Your task to perform on an android device: toggle improve location accuracy Image 0: 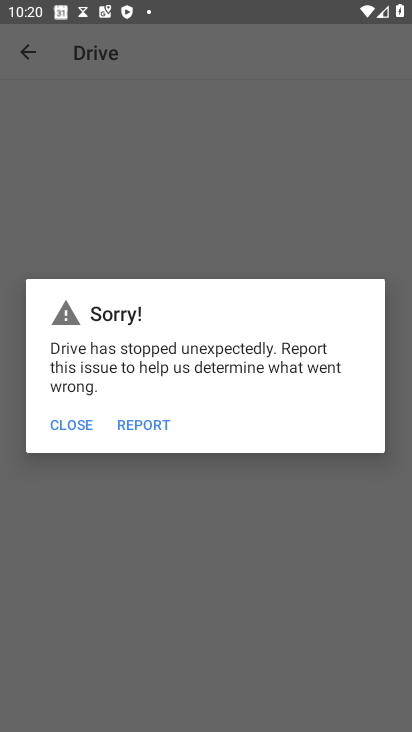
Step 0: press home button
Your task to perform on an android device: toggle improve location accuracy Image 1: 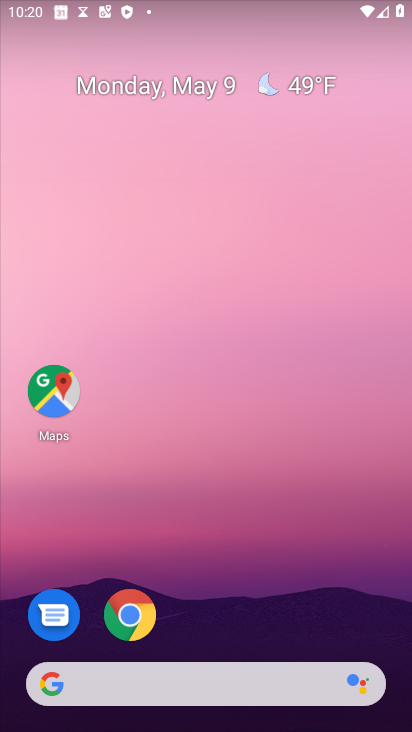
Step 1: drag from (242, 566) to (289, 206)
Your task to perform on an android device: toggle improve location accuracy Image 2: 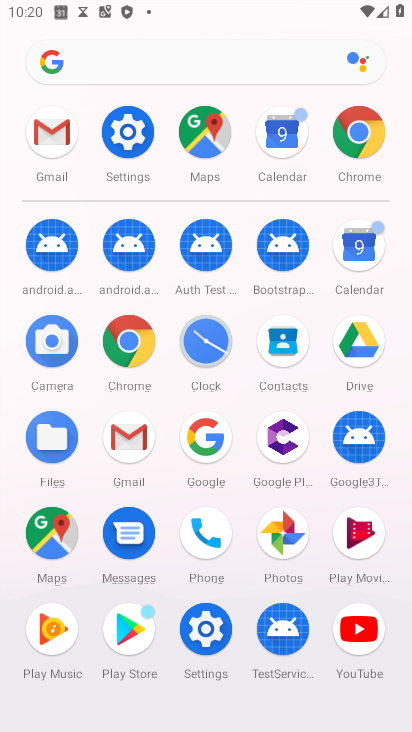
Step 2: click (118, 137)
Your task to perform on an android device: toggle improve location accuracy Image 3: 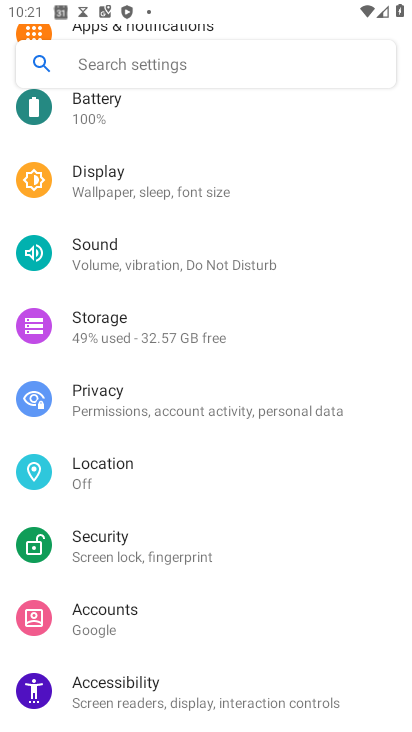
Step 3: click (182, 470)
Your task to perform on an android device: toggle improve location accuracy Image 4: 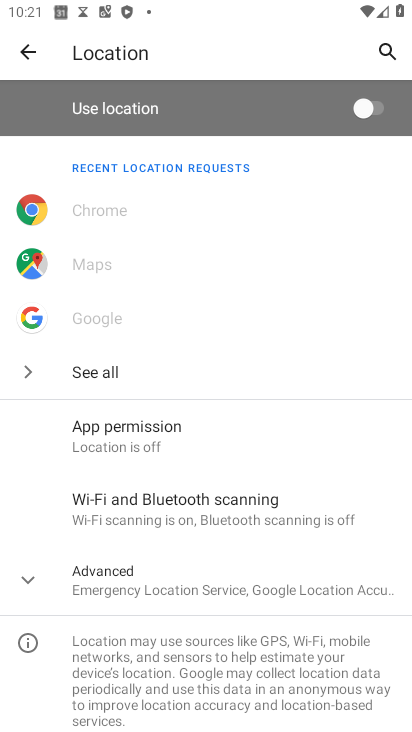
Step 4: click (35, 579)
Your task to perform on an android device: toggle improve location accuracy Image 5: 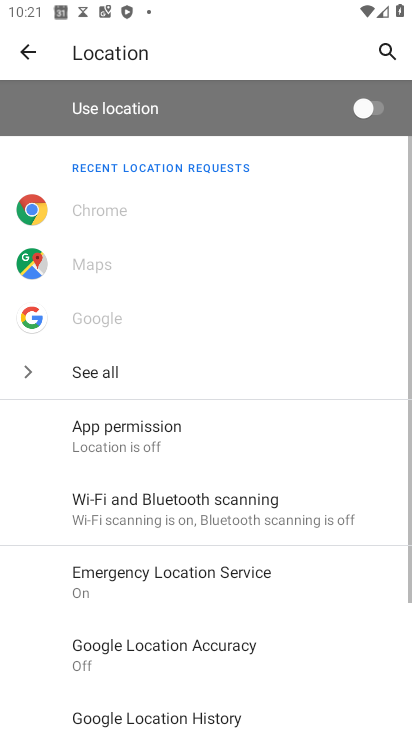
Step 5: drag from (231, 651) to (249, 436)
Your task to perform on an android device: toggle improve location accuracy Image 6: 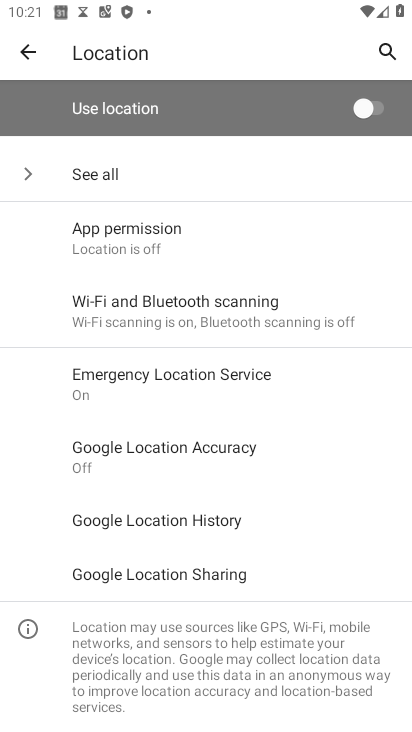
Step 6: click (228, 471)
Your task to perform on an android device: toggle improve location accuracy Image 7: 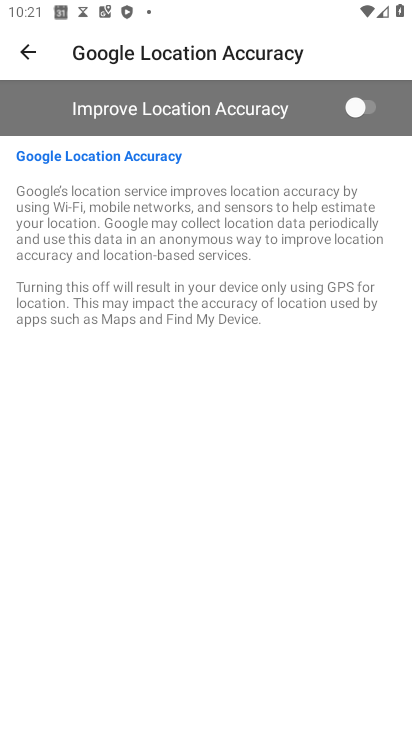
Step 7: click (366, 110)
Your task to perform on an android device: toggle improve location accuracy Image 8: 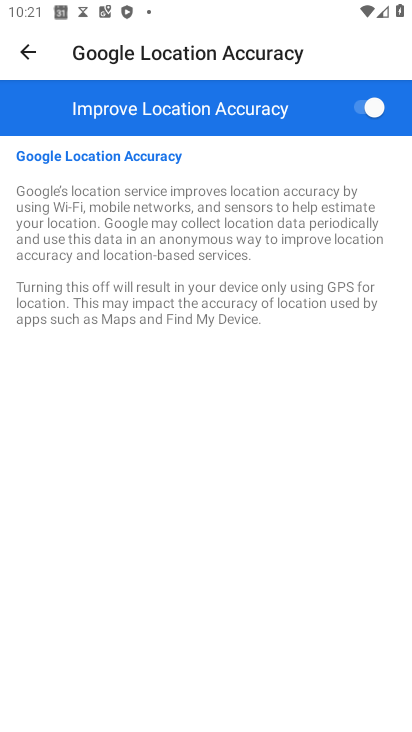
Step 8: task complete